Your task to perform on an android device: Is it going to rain tomorrow? Image 0: 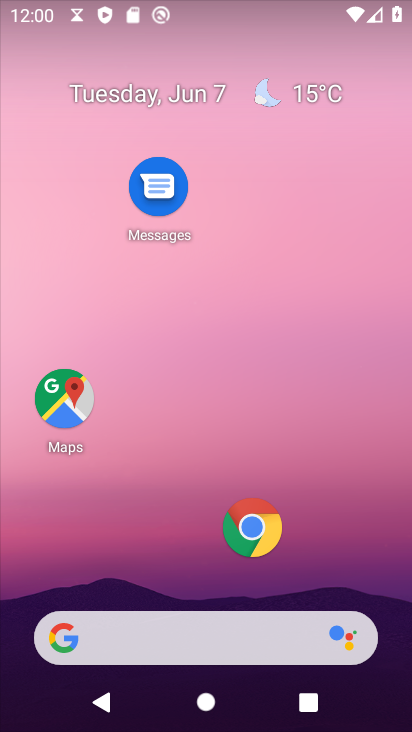
Step 0: drag from (164, 587) to (197, 355)
Your task to perform on an android device: Is it going to rain tomorrow? Image 1: 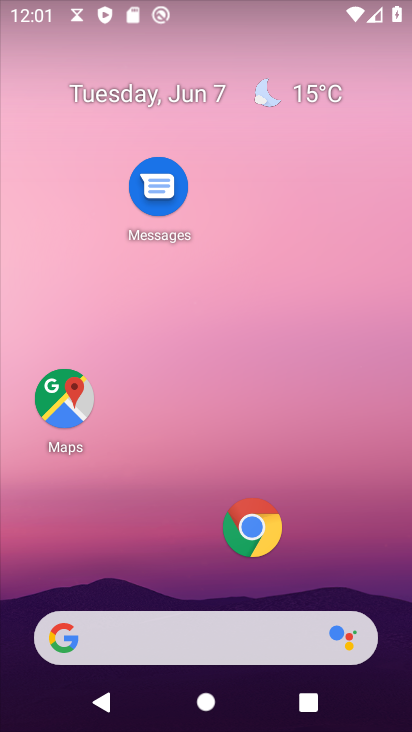
Step 1: drag from (298, 611) to (308, 81)
Your task to perform on an android device: Is it going to rain tomorrow? Image 2: 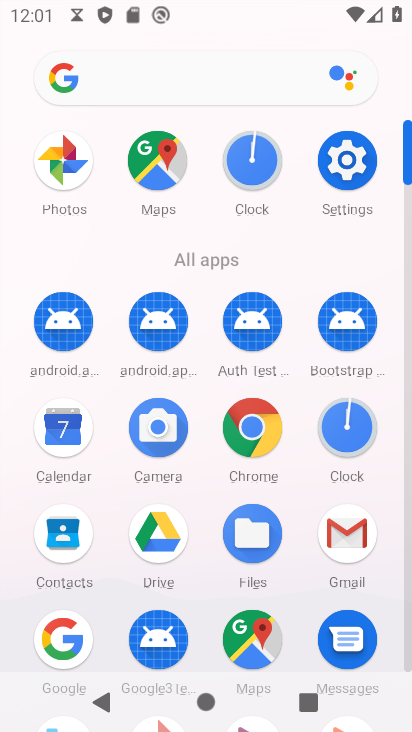
Step 2: click (70, 633)
Your task to perform on an android device: Is it going to rain tomorrow? Image 3: 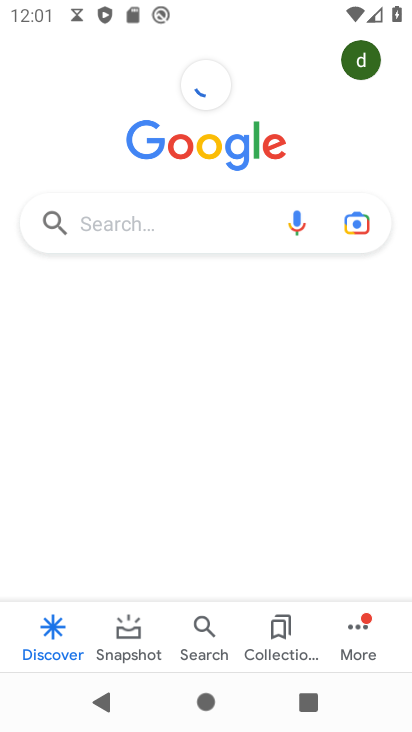
Step 3: click (162, 236)
Your task to perform on an android device: Is it going to rain tomorrow? Image 4: 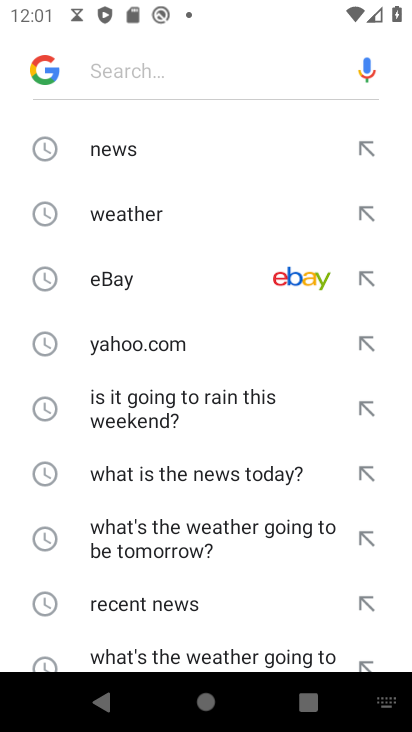
Step 4: drag from (224, 656) to (223, 247)
Your task to perform on an android device: Is it going to rain tomorrow? Image 5: 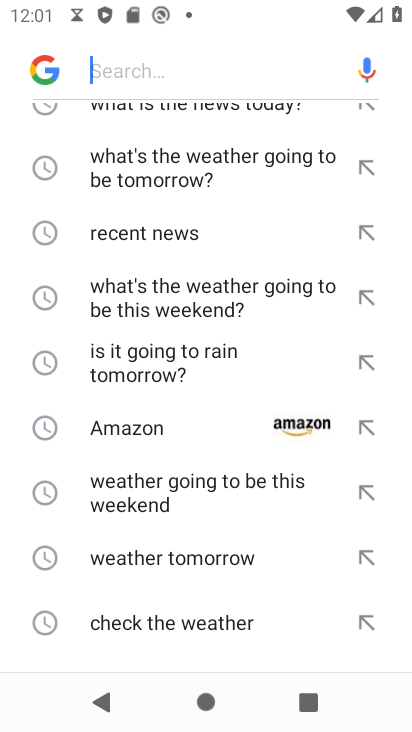
Step 5: drag from (202, 622) to (195, 233)
Your task to perform on an android device: Is it going to rain tomorrow? Image 6: 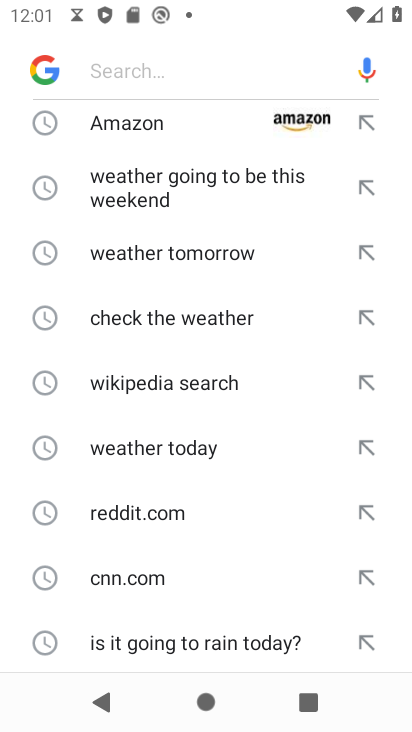
Step 6: drag from (172, 146) to (197, 552)
Your task to perform on an android device: Is it going to rain tomorrow? Image 7: 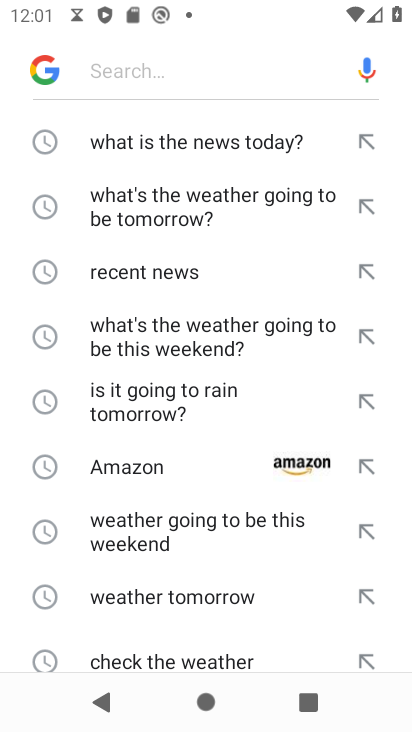
Step 7: click (134, 401)
Your task to perform on an android device: Is it going to rain tomorrow? Image 8: 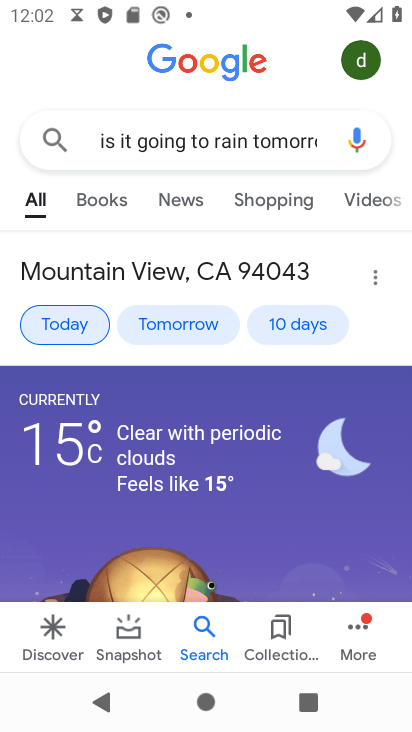
Step 8: task complete